Your task to perform on an android device: Go to Android settings Image 0: 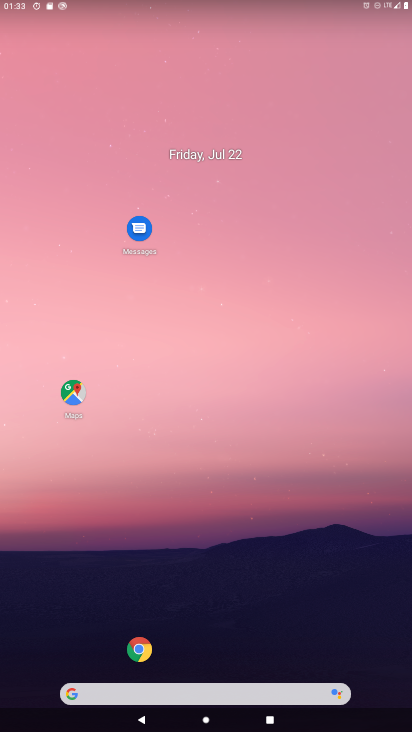
Step 0: drag from (17, 686) to (225, 139)
Your task to perform on an android device: Go to Android settings Image 1: 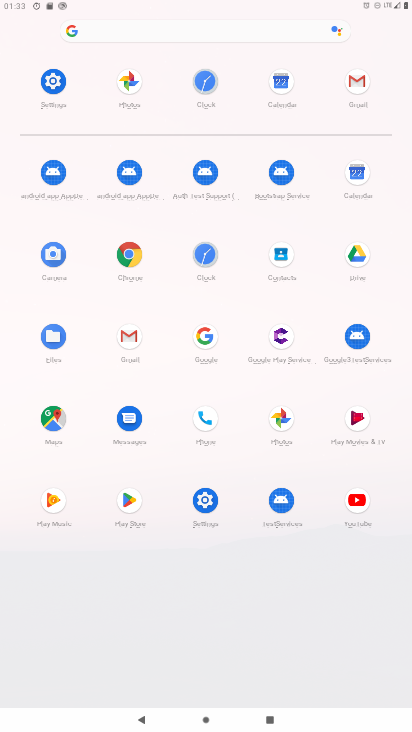
Step 1: click (207, 490)
Your task to perform on an android device: Go to Android settings Image 2: 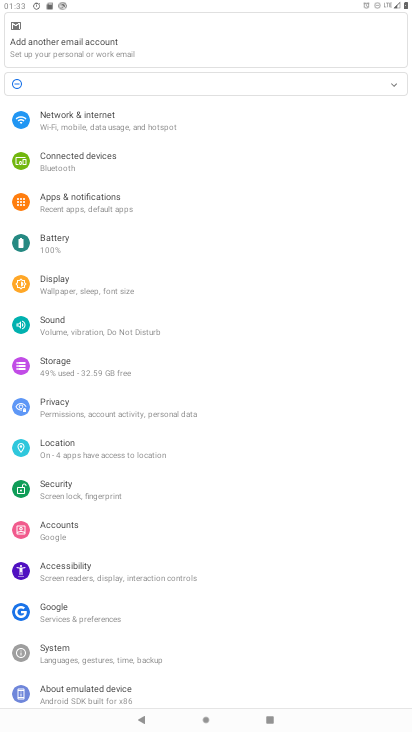
Step 2: click (57, 692)
Your task to perform on an android device: Go to Android settings Image 3: 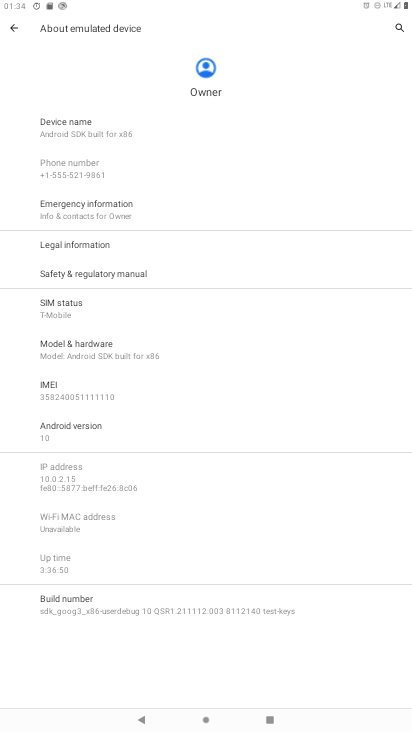
Step 3: click (83, 435)
Your task to perform on an android device: Go to Android settings Image 4: 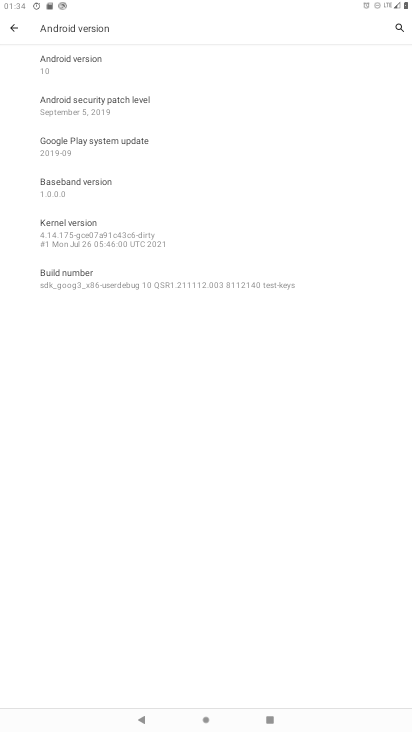
Step 4: task complete